Your task to perform on an android device: Open the map Image 0: 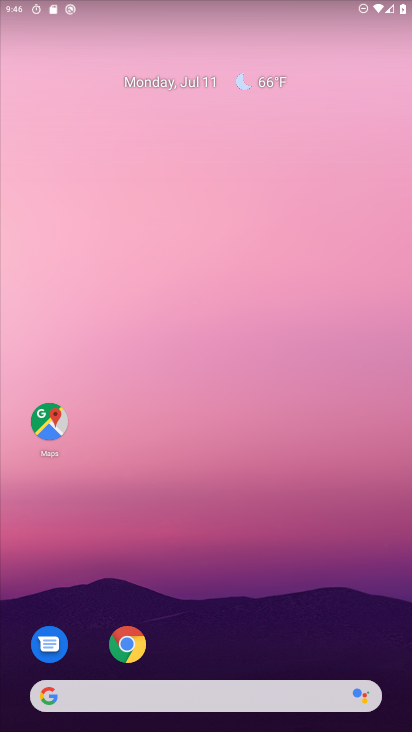
Step 0: click (51, 423)
Your task to perform on an android device: Open the map Image 1: 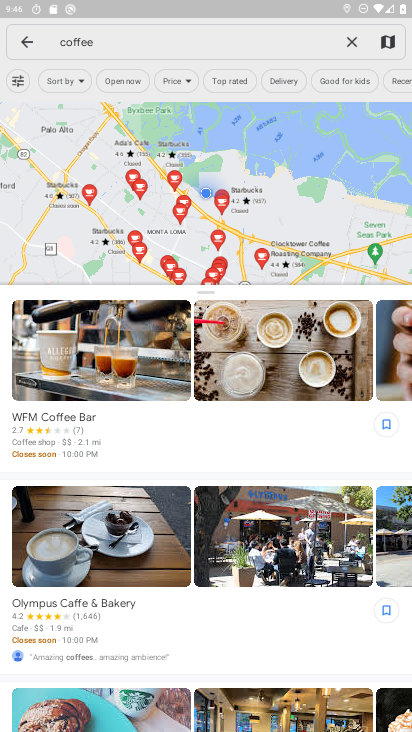
Step 1: task complete